Your task to perform on an android device: Do I have any events this weekend? Image 0: 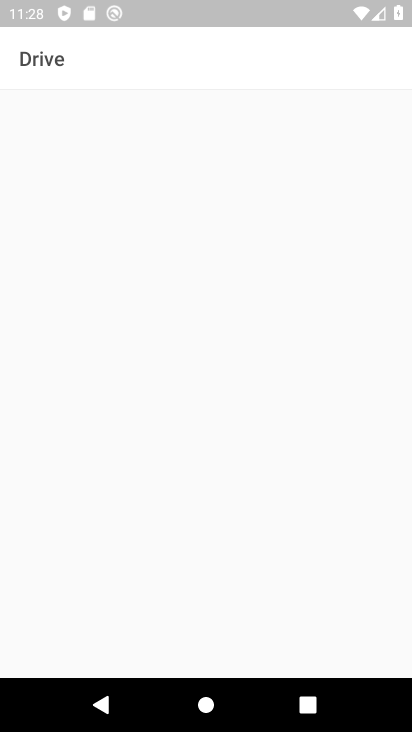
Step 0: press home button
Your task to perform on an android device: Do I have any events this weekend? Image 1: 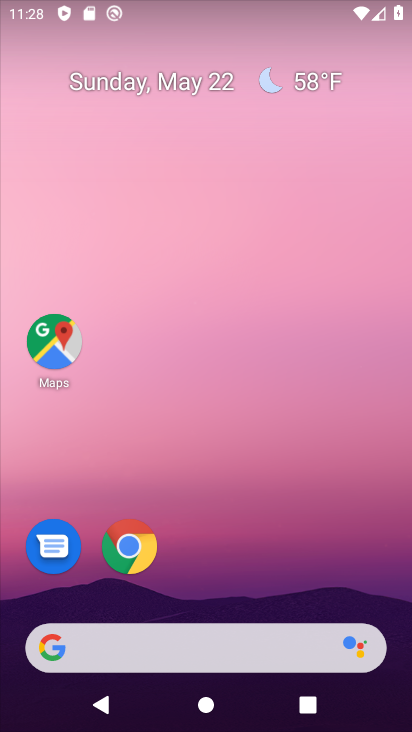
Step 1: drag from (373, 600) to (304, 40)
Your task to perform on an android device: Do I have any events this weekend? Image 2: 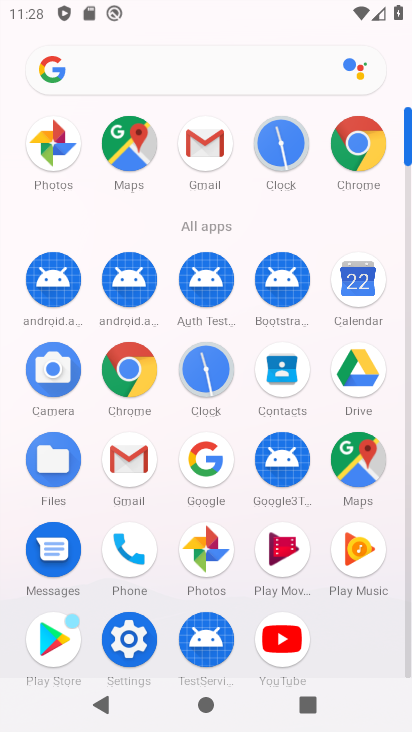
Step 2: click (355, 278)
Your task to perform on an android device: Do I have any events this weekend? Image 3: 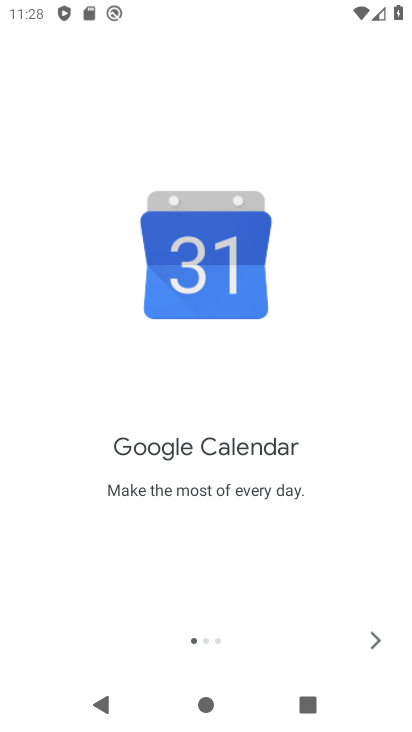
Step 3: click (373, 644)
Your task to perform on an android device: Do I have any events this weekend? Image 4: 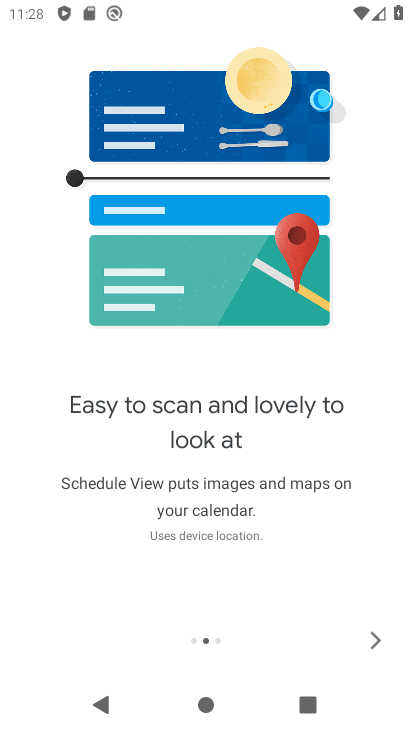
Step 4: click (373, 644)
Your task to perform on an android device: Do I have any events this weekend? Image 5: 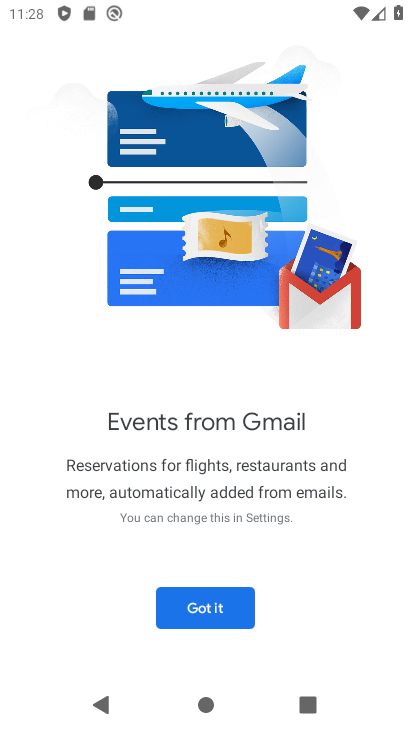
Step 5: click (203, 613)
Your task to perform on an android device: Do I have any events this weekend? Image 6: 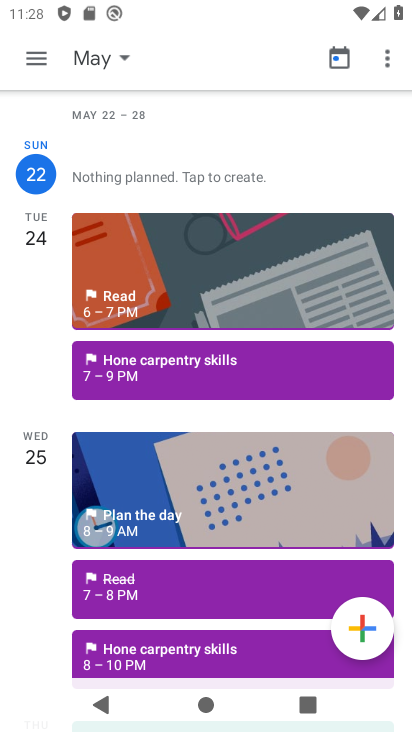
Step 6: click (44, 61)
Your task to perform on an android device: Do I have any events this weekend? Image 7: 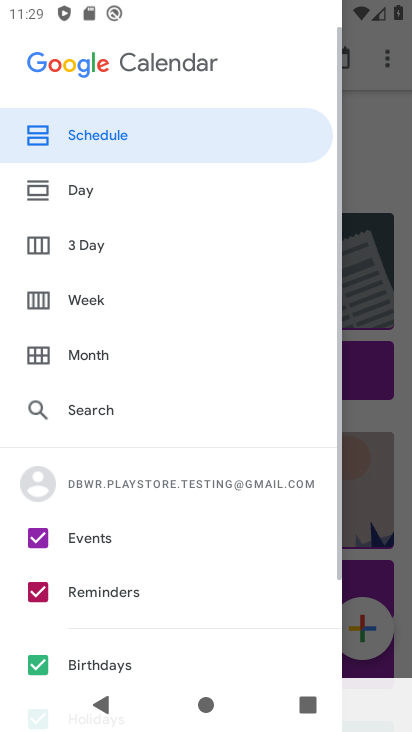
Step 7: click (82, 294)
Your task to perform on an android device: Do I have any events this weekend? Image 8: 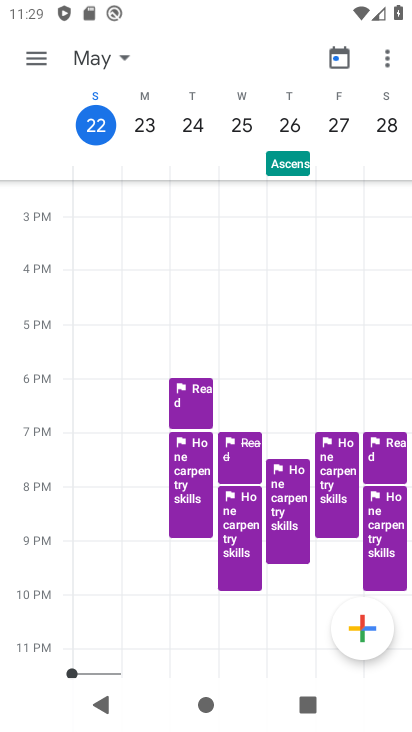
Step 8: task complete